Your task to perform on an android device: open app "HBO Max: Stream TV & Movies" (install if not already installed) and enter user name: "faring@outlook.com" and password: "appropriately" Image 0: 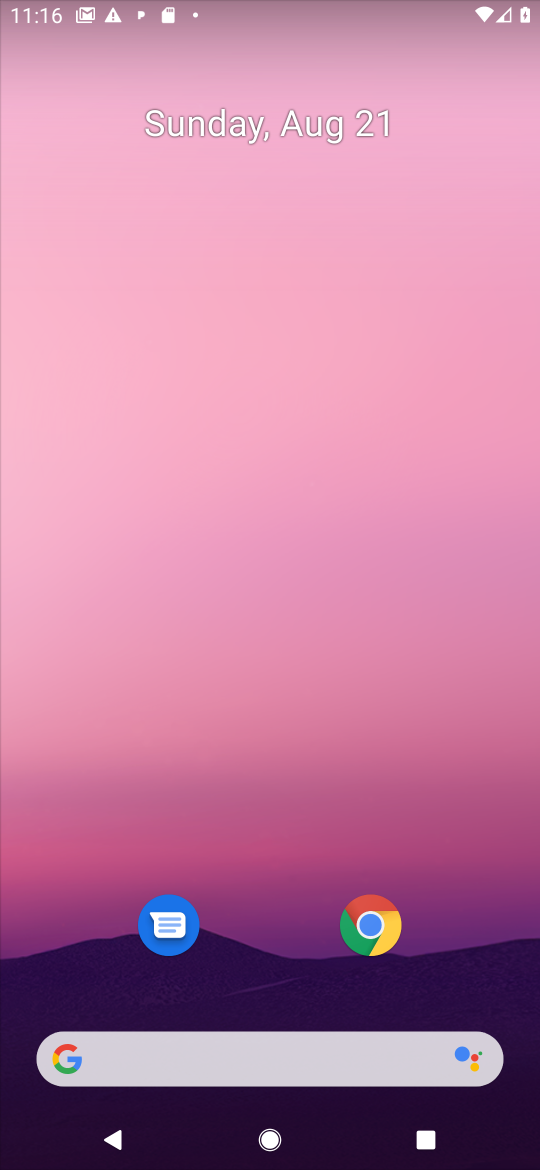
Step 0: drag from (270, 819) to (396, 4)
Your task to perform on an android device: open app "HBO Max: Stream TV & Movies" (install if not already installed) and enter user name: "faring@outlook.com" and password: "appropriately" Image 1: 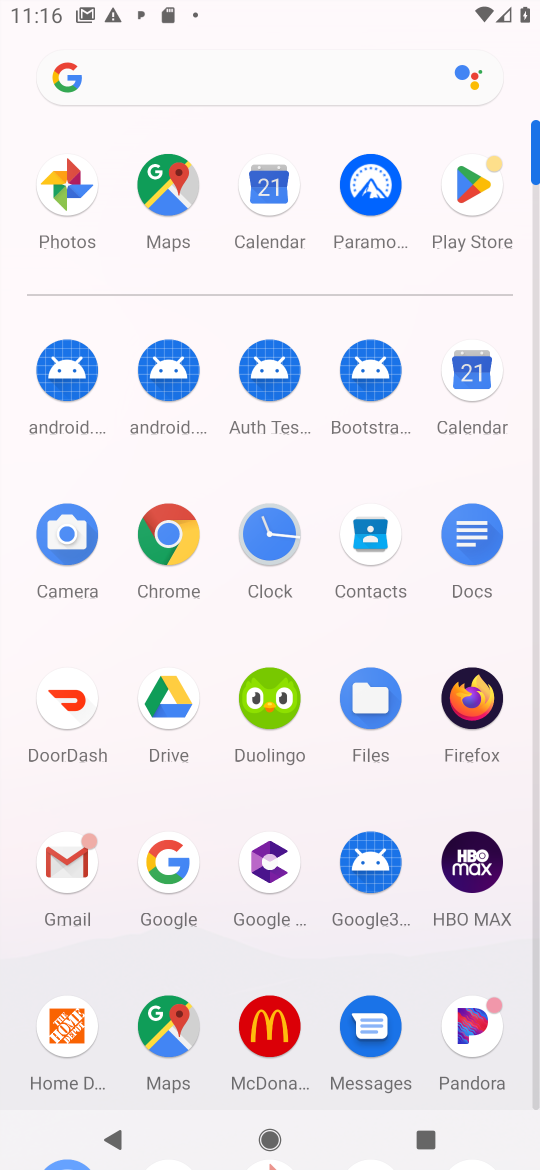
Step 1: click (469, 175)
Your task to perform on an android device: open app "HBO Max: Stream TV & Movies" (install if not already installed) and enter user name: "faring@outlook.com" and password: "appropriately" Image 2: 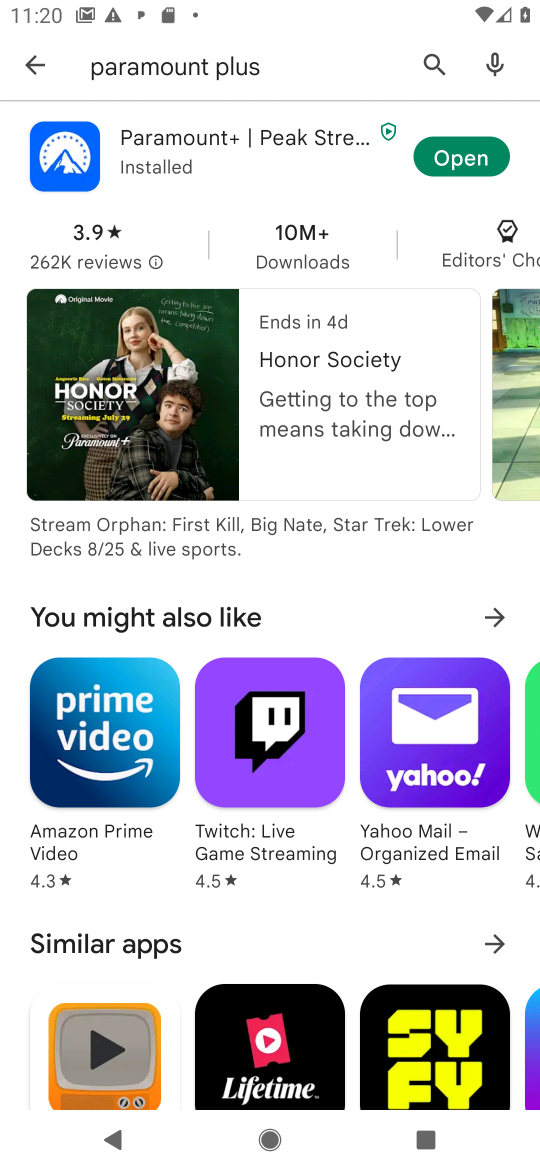
Step 2: click (440, 56)
Your task to perform on an android device: open app "HBO Max: Stream TV & Movies" (install if not already installed) and enter user name: "faring@outlook.com" and password: "appropriately" Image 3: 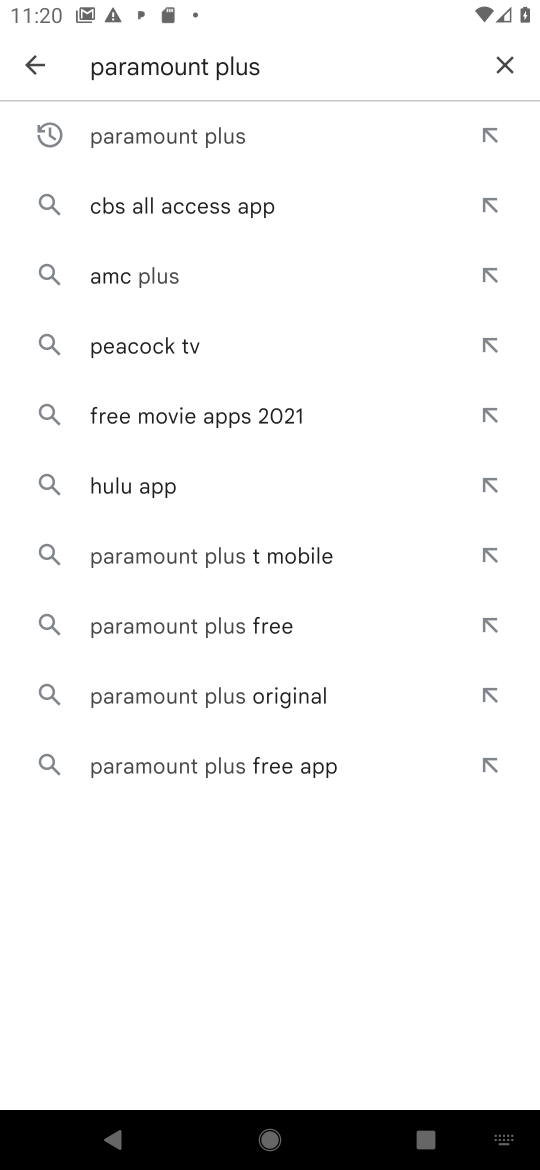
Step 3: click (517, 72)
Your task to perform on an android device: open app "HBO Max: Stream TV & Movies" (install if not already installed) and enter user name: "faring@outlook.com" and password: "appropriately" Image 4: 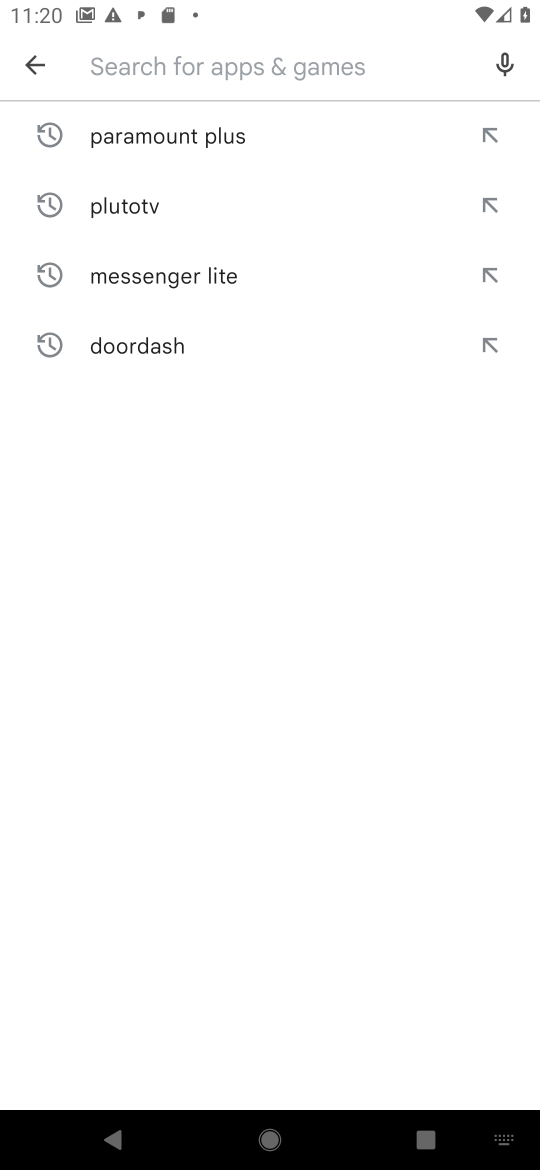
Step 4: click (230, 75)
Your task to perform on an android device: open app "HBO Max: Stream TV & Movies" (install if not already installed) and enter user name: "faring@outlook.com" and password: "appropriately" Image 5: 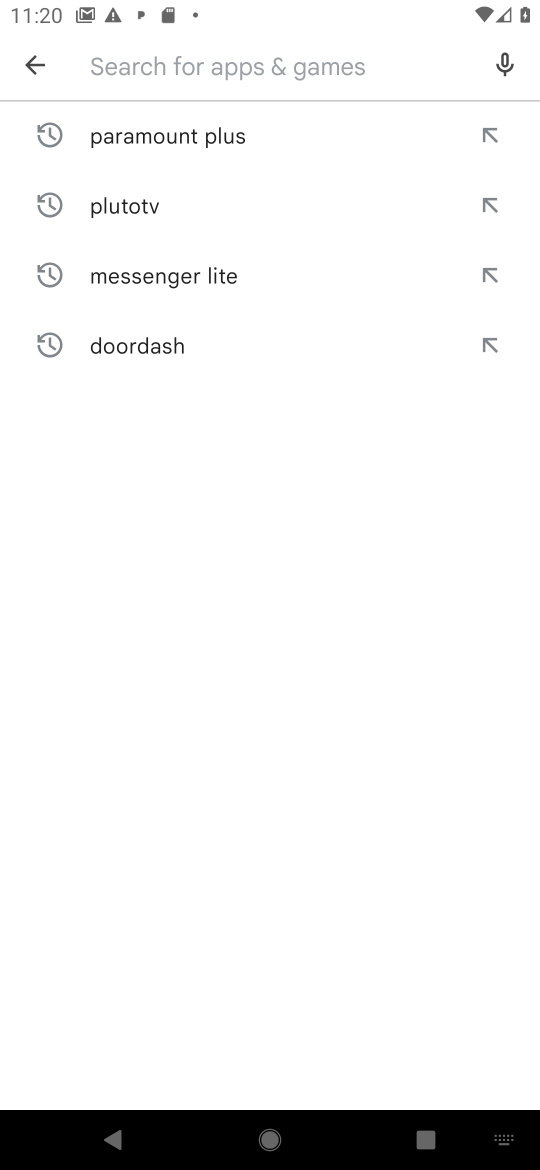
Step 5: type "hbo"
Your task to perform on an android device: open app "HBO Max: Stream TV & Movies" (install if not already installed) and enter user name: "faring@outlook.com" and password: "appropriately" Image 6: 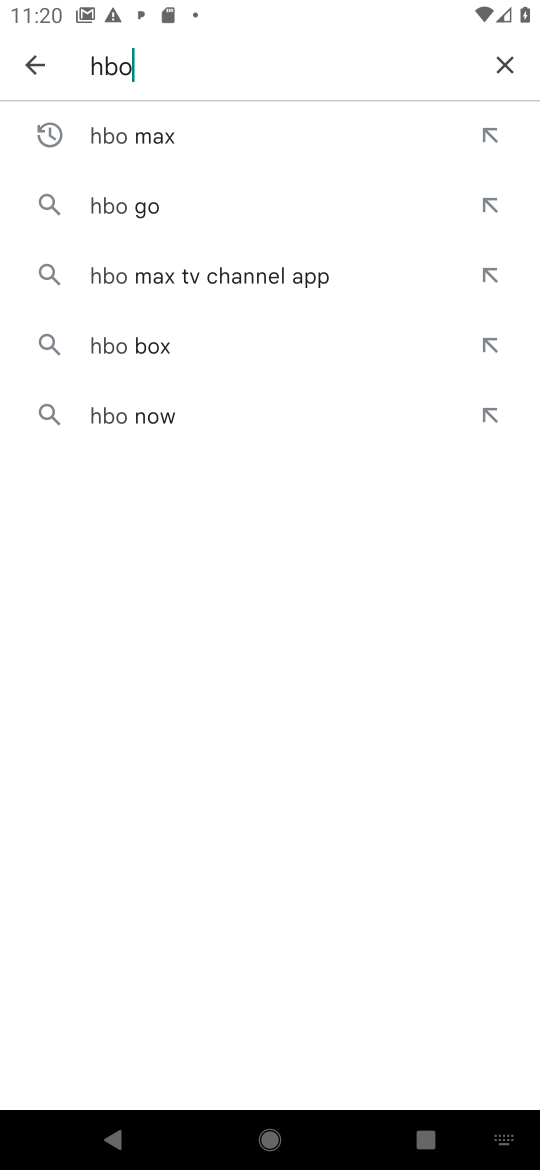
Step 6: click (277, 138)
Your task to perform on an android device: open app "HBO Max: Stream TV & Movies" (install if not already installed) and enter user name: "faring@outlook.com" and password: "appropriately" Image 7: 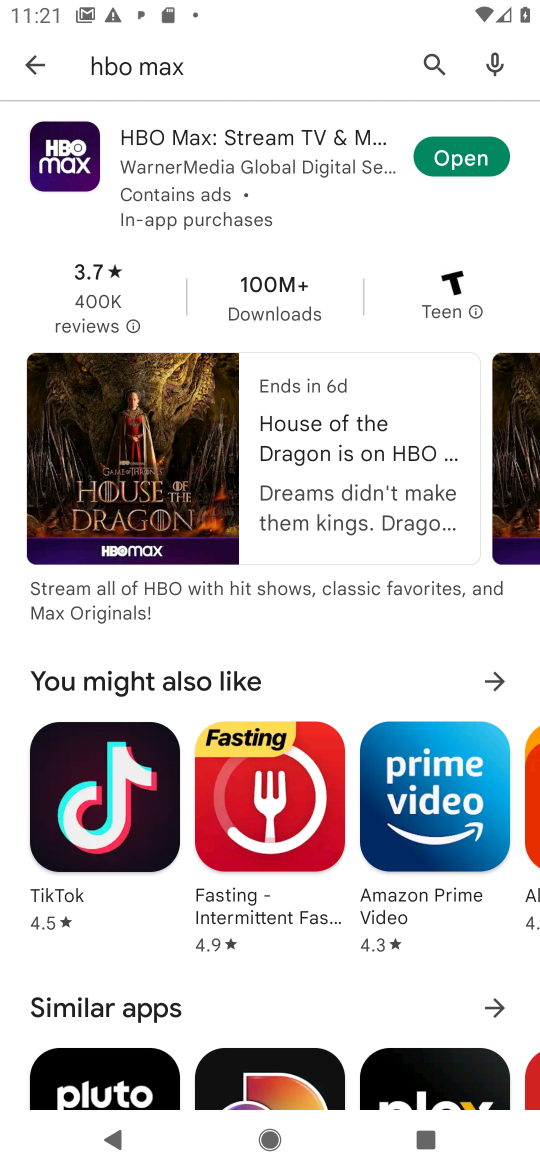
Step 7: click (446, 161)
Your task to perform on an android device: open app "HBO Max: Stream TV & Movies" (install if not already installed) and enter user name: "faring@outlook.com" and password: "appropriately" Image 8: 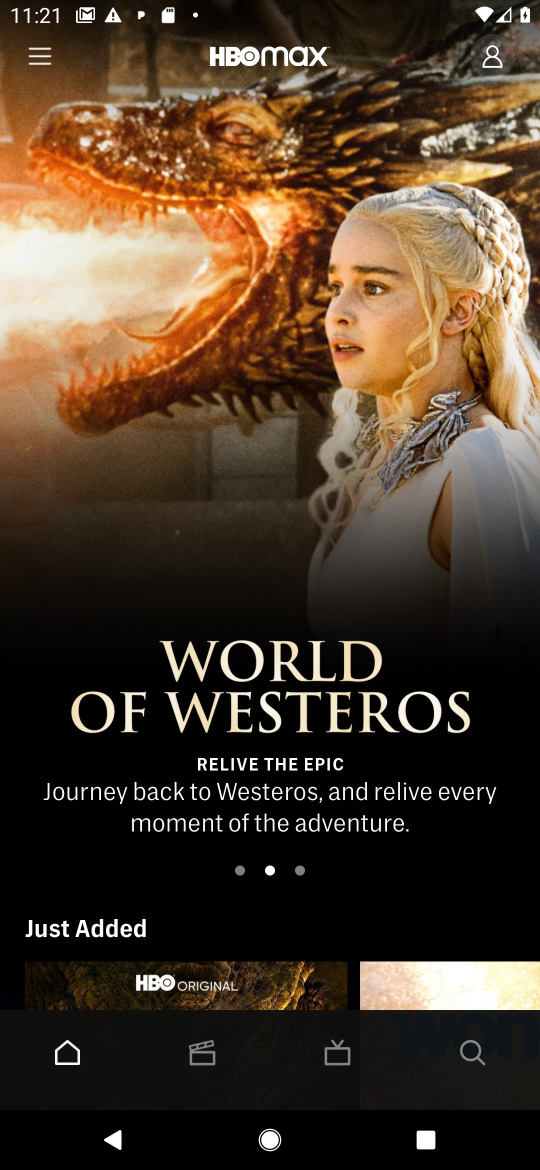
Step 8: click (492, 51)
Your task to perform on an android device: open app "HBO Max: Stream TV & Movies" (install if not already installed) and enter user name: "faring@outlook.com" and password: "appropriately" Image 9: 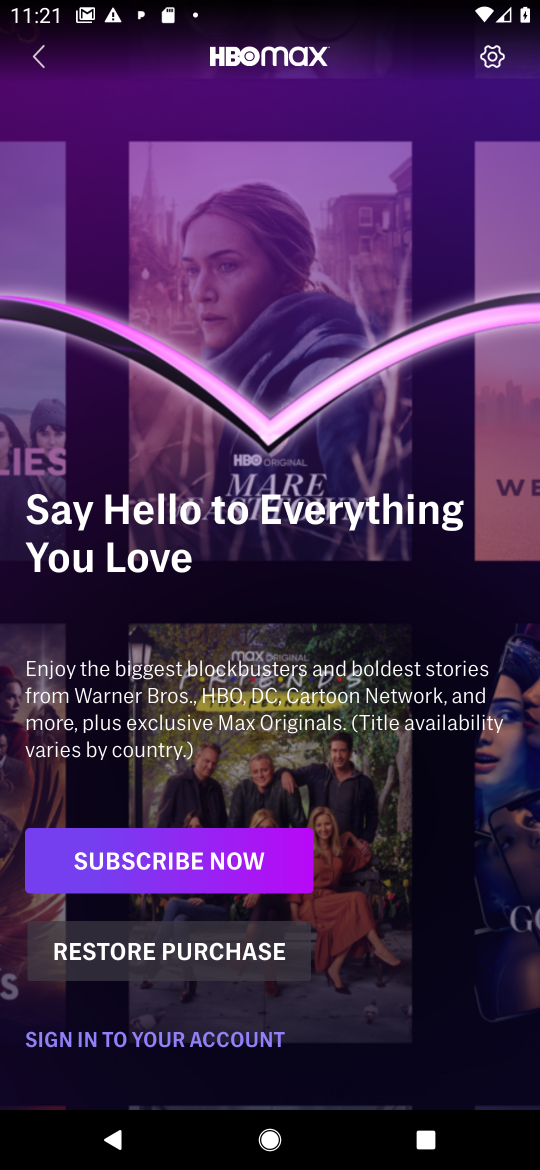
Step 9: drag from (361, 901) to (394, 123)
Your task to perform on an android device: open app "HBO Max: Stream TV & Movies" (install if not already installed) and enter user name: "faring@outlook.com" and password: "appropriately" Image 10: 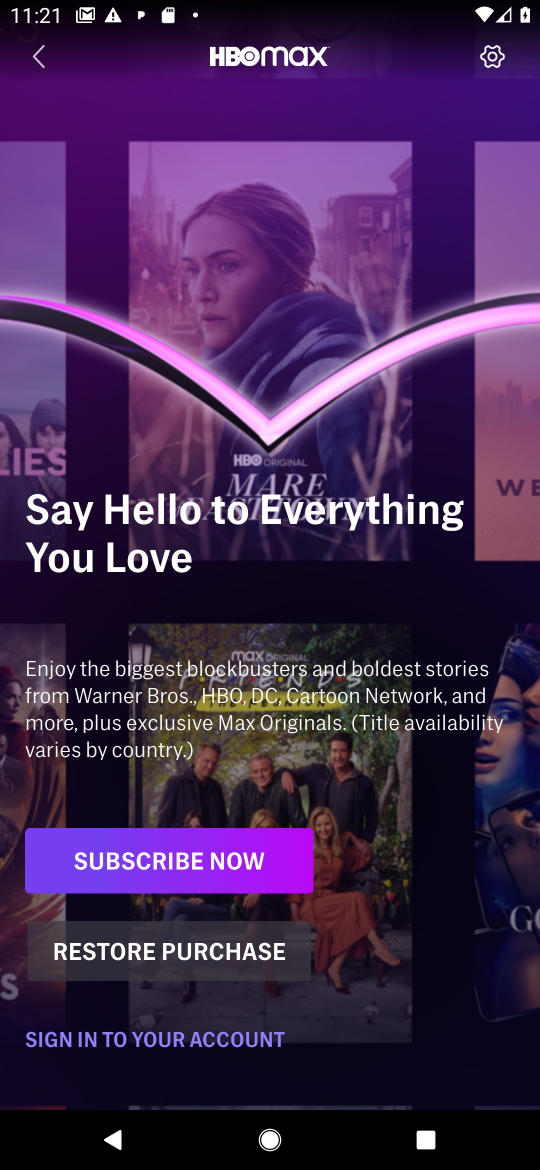
Step 10: click (164, 1043)
Your task to perform on an android device: open app "HBO Max: Stream TV & Movies" (install if not already installed) and enter user name: "faring@outlook.com" and password: "appropriately" Image 11: 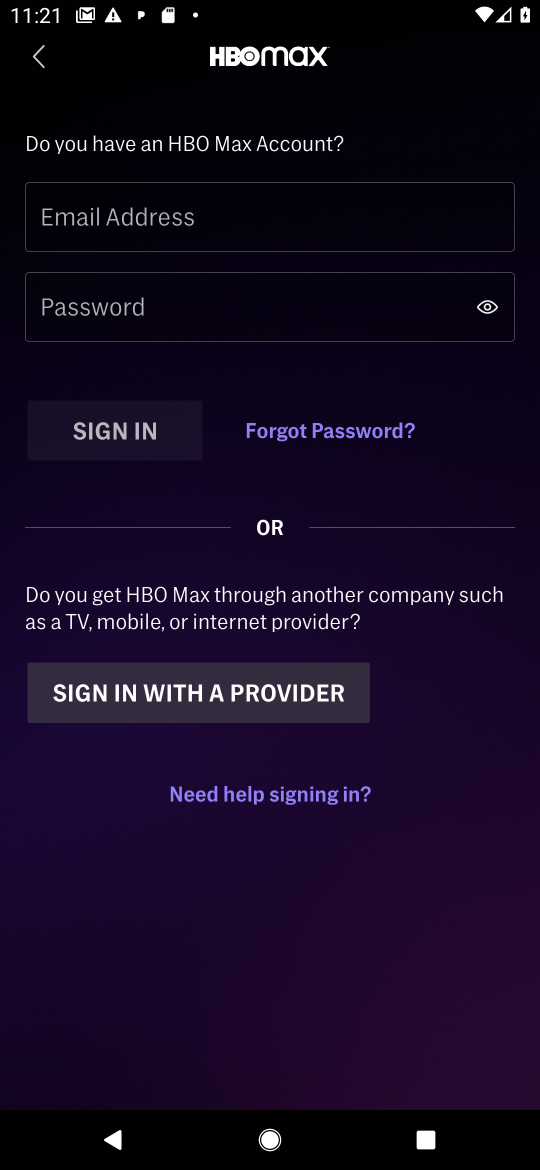
Step 11: click (137, 215)
Your task to perform on an android device: open app "HBO Max: Stream TV & Movies" (install if not already installed) and enter user name: "faring@outlook.com" and password: "appropriately" Image 12: 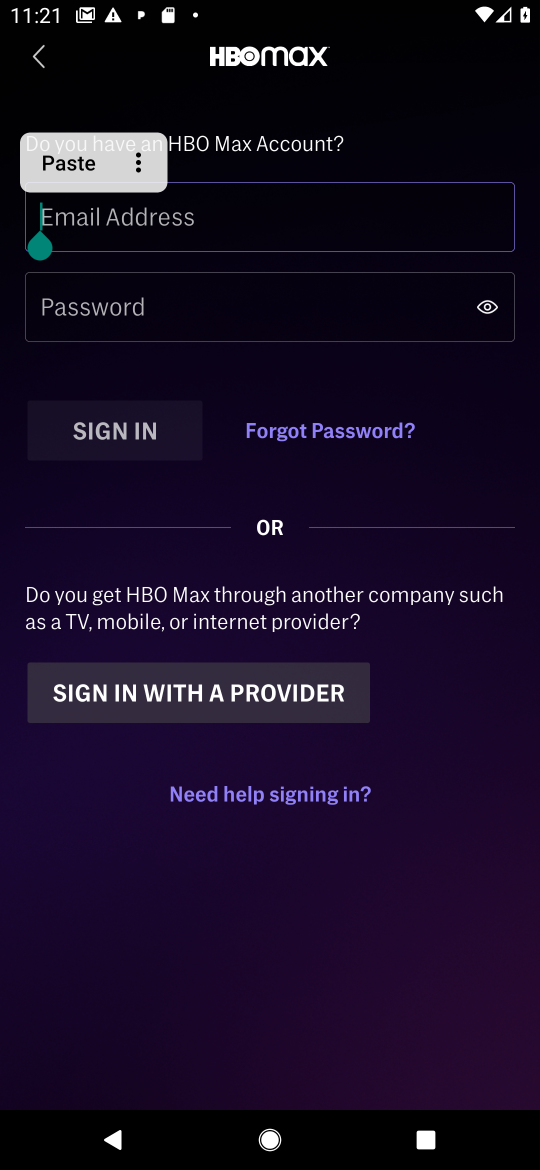
Step 12: type "faring@outlook.com"
Your task to perform on an android device: open app "HBO Max: Stream TV & Movies" (install if not already installed) and enter user name: "faring@outlook.com" and password: "appropriately" Image 13: 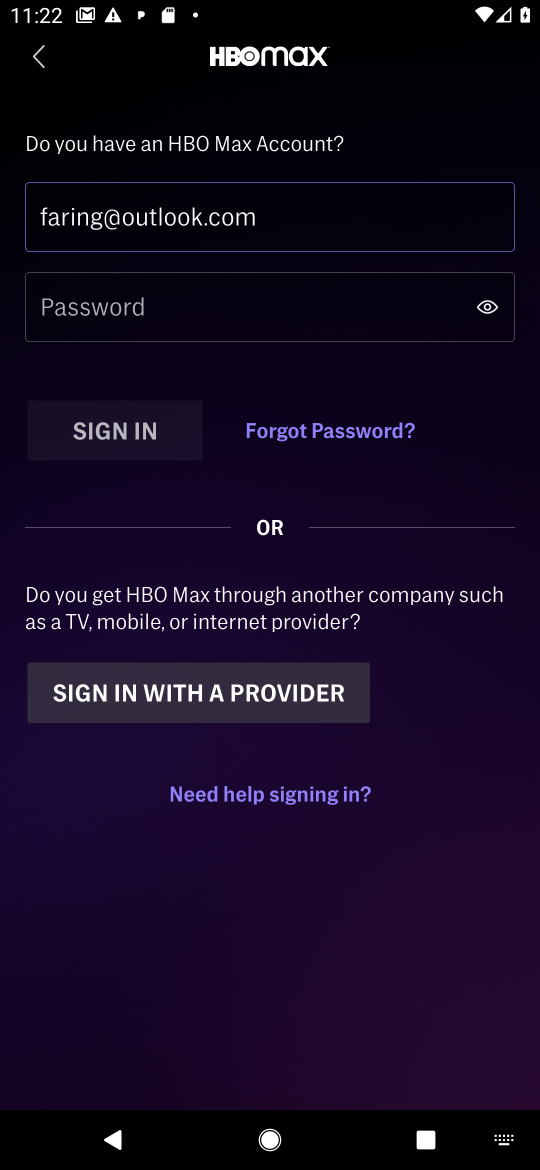
Step 13: click (248, 306)
Your task to perform on an android device: open app "HBO Max: Stream TV & Movies" (install if not already installed) and enter user name: "faring@outlook.com" and password: "appropriately" Image 14: 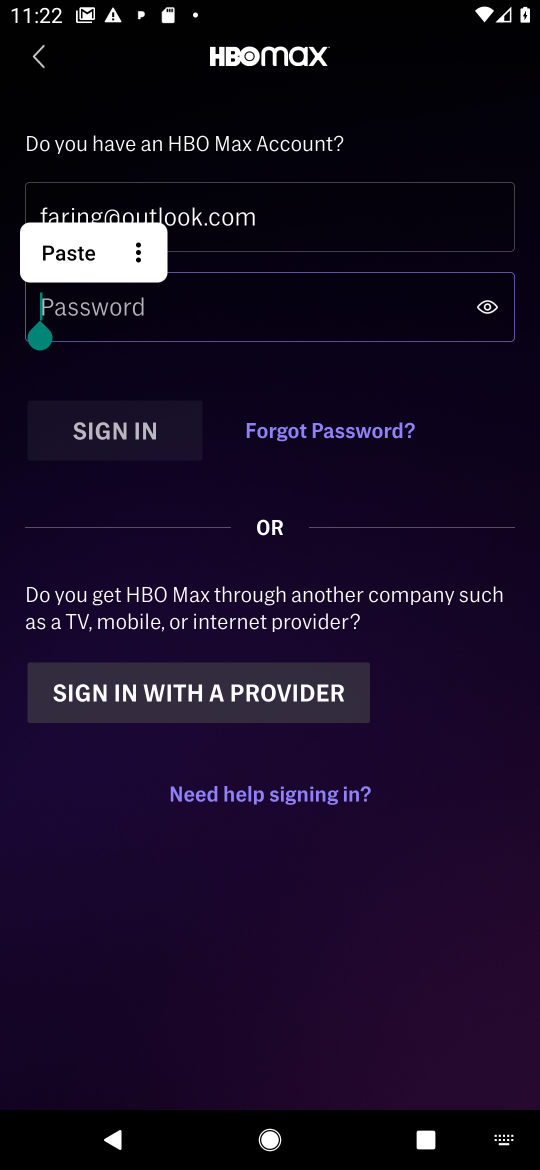
Step 14: type "appropriately"
Your task to perform on an android device: open app "HBO Max: Stream TV & Movies" (install if not already installed) and enter user name: "faring@outlook.com" and password: "appropriately" Image 15: 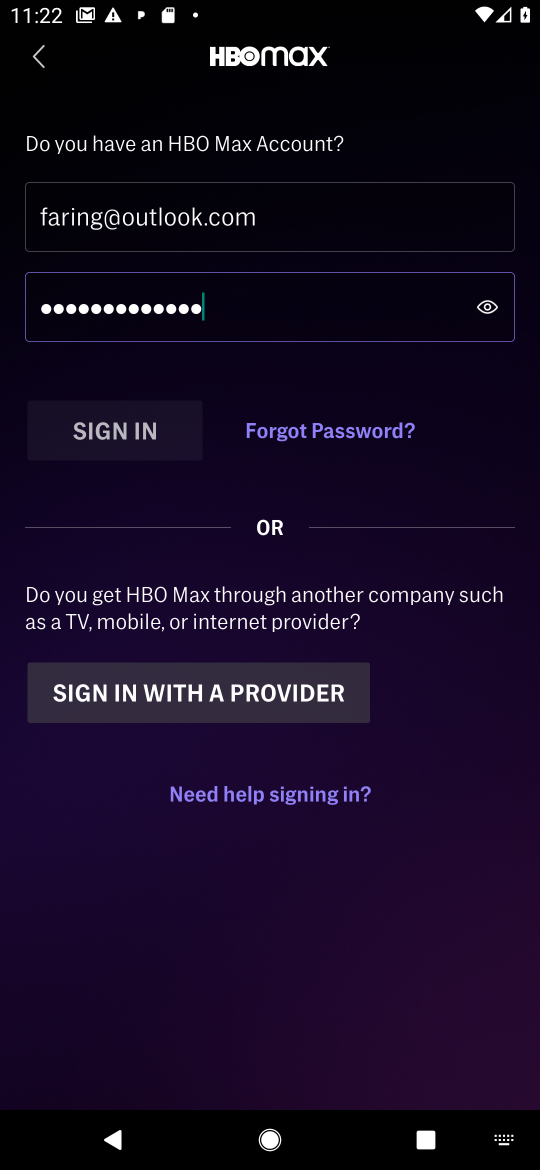
Step 15: task complete